Your task to perform on an android device: Go to internet settings Image 0: 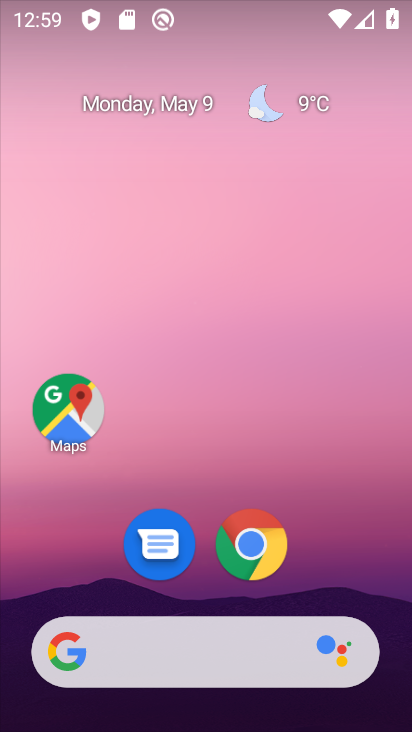
Step 0: drag from (350, 504) to (302, 22)
Your task to perform on an android device: Go to internet settings Image 1: 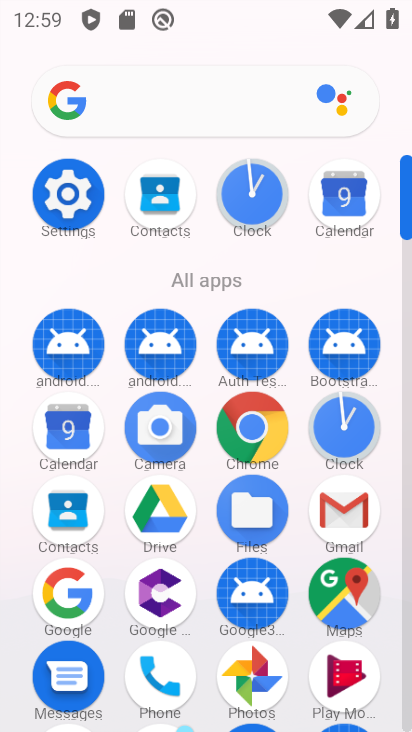
Step 1: click (72, 214)
Your task to perform on an android device: Go to internet settings Image 2: 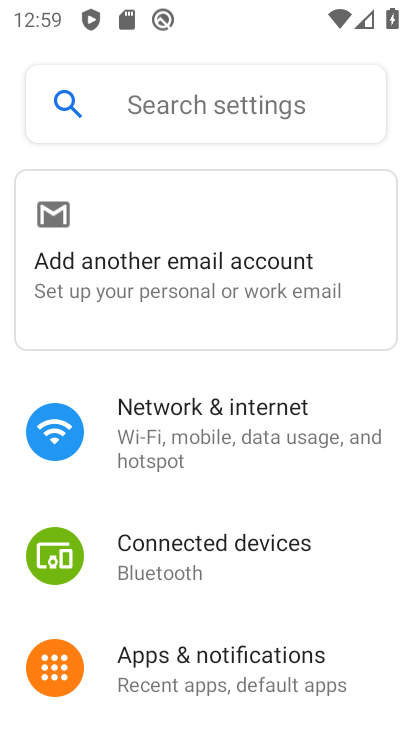
Step 2: click (212, 431)
Your task to perform on an android device: Go to internet settings Image 3: 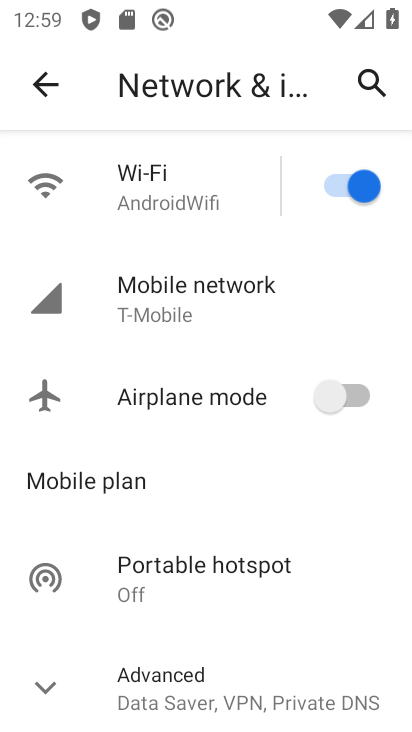
Step 3: task complete